Your task to perform on an android device: open a bookmark in the chrome app Image 0: 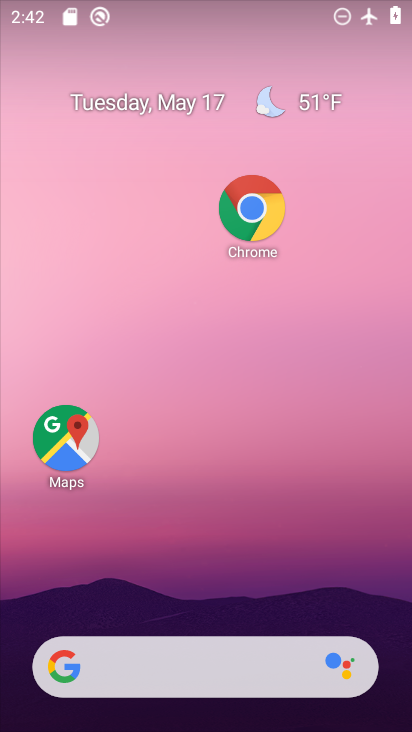
Step 0: click (271, 226)
Your task to perform on an android device: open a bookmark in the chrome app Image 1: 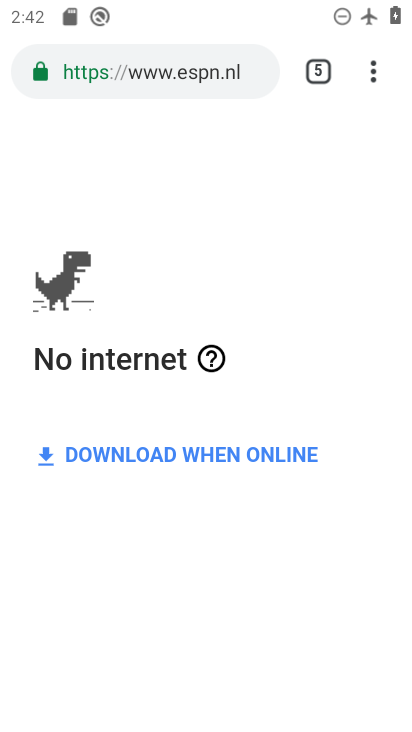
Step 1: click (379, 73)
Your task to perform on an android device: open a bookmark in the chrome app Image 2: 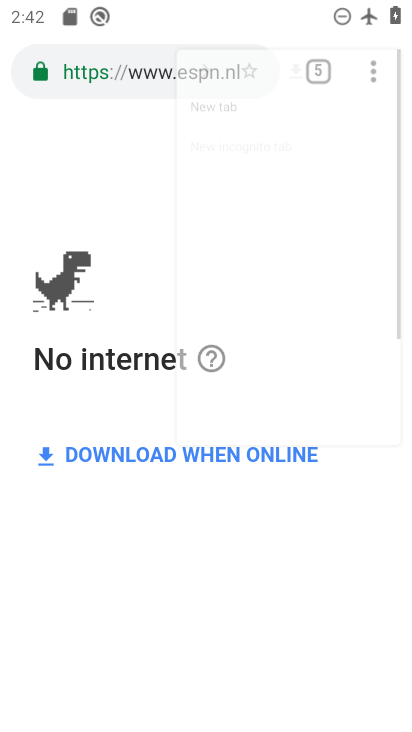
Step 2: click (379, 73)
Your task to perform on an android device: open a bookmark in the chrome app Image 3: 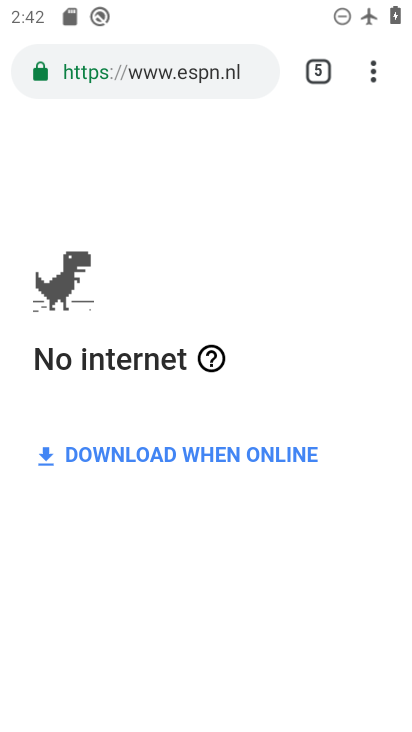
Step 3: click (379, 72)
Your task to perform on an android device: open a bookmark in the chrome app Image 4: 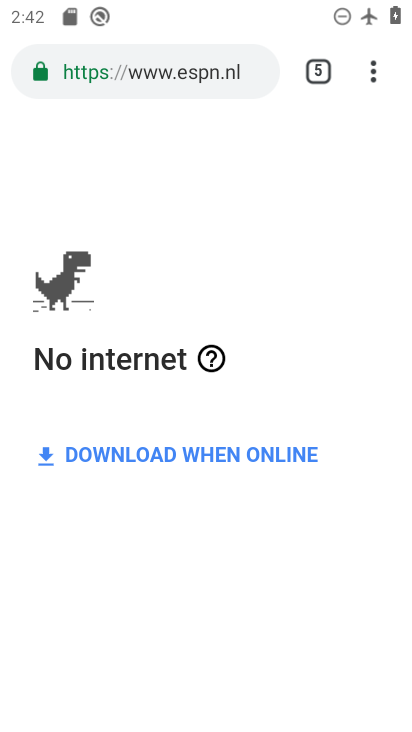
Step 4: click (379, 72)
Your task to perform on an android device: open a bookmark in the chrome app Image 5: 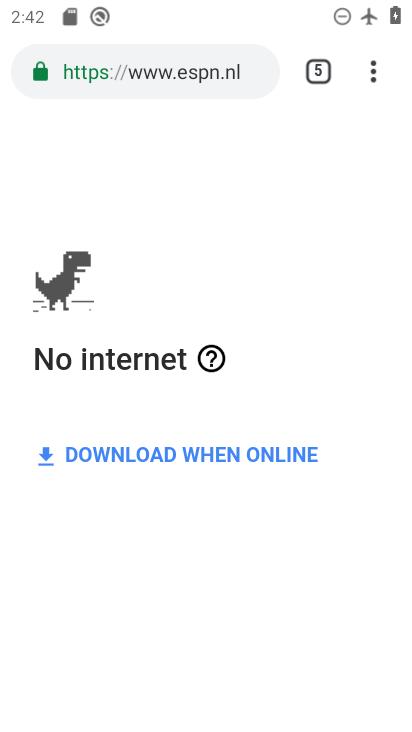
Step 5: click (384, 75)
Your task to perform on an android device: open a bookmark in the chrome app Image 6: 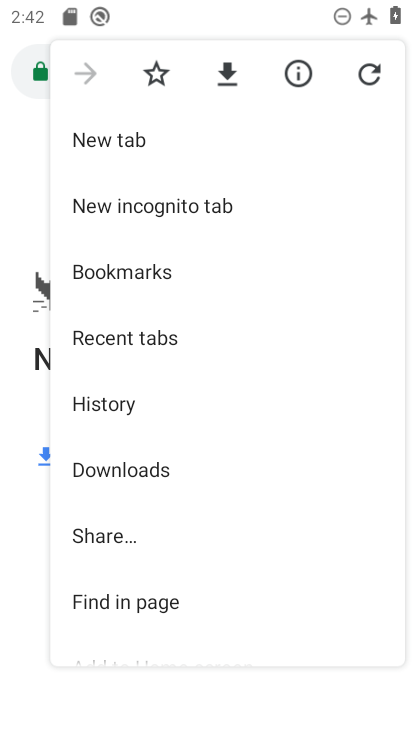
Step 6: click (152, 279)
Your task to perform on an android device: open a bookmark in the chrome app Image 7: 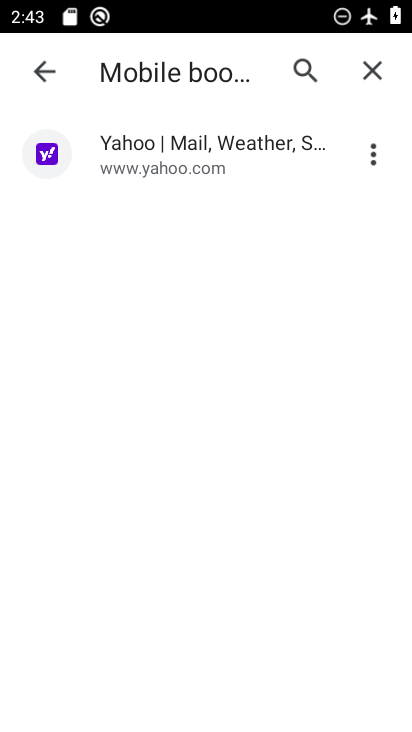
Step 7: task complete